Your task to perform on an android device: uninstall "Pinterest" Image 0: 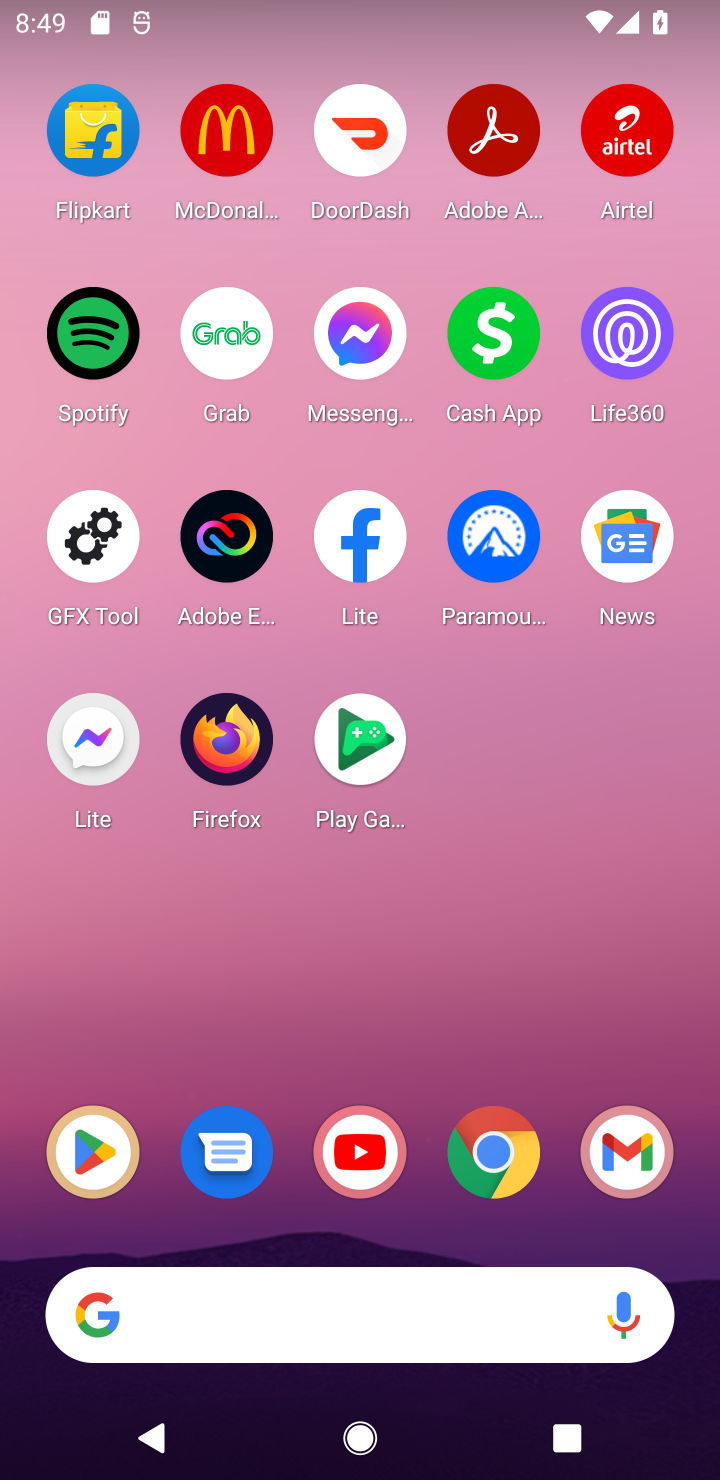
Step 0: click (89, 1154)
Your task to perform on an android device: uninstall "Pinterest" Image 1: 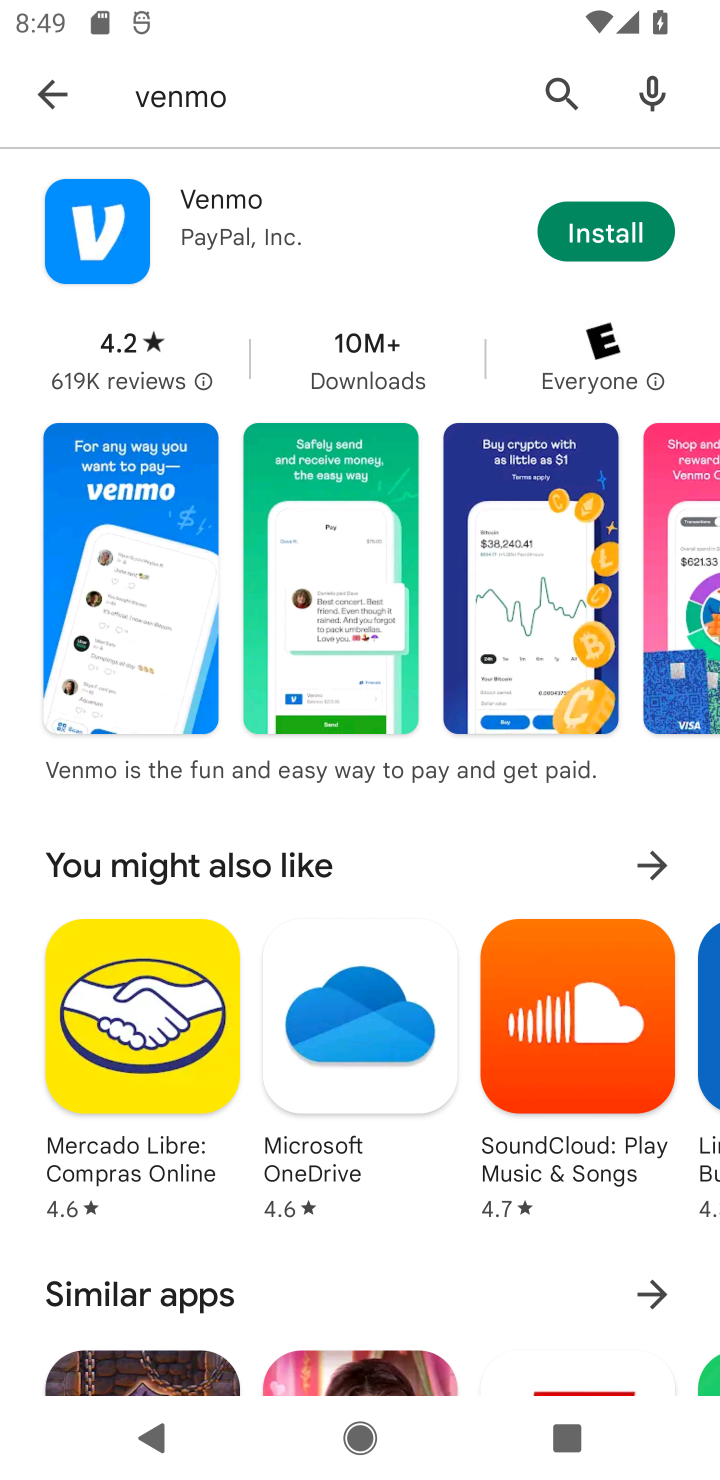
Step 1: click (23, 79)
Your task to perform on an android device: uninstall "Pinterest" Image 2: 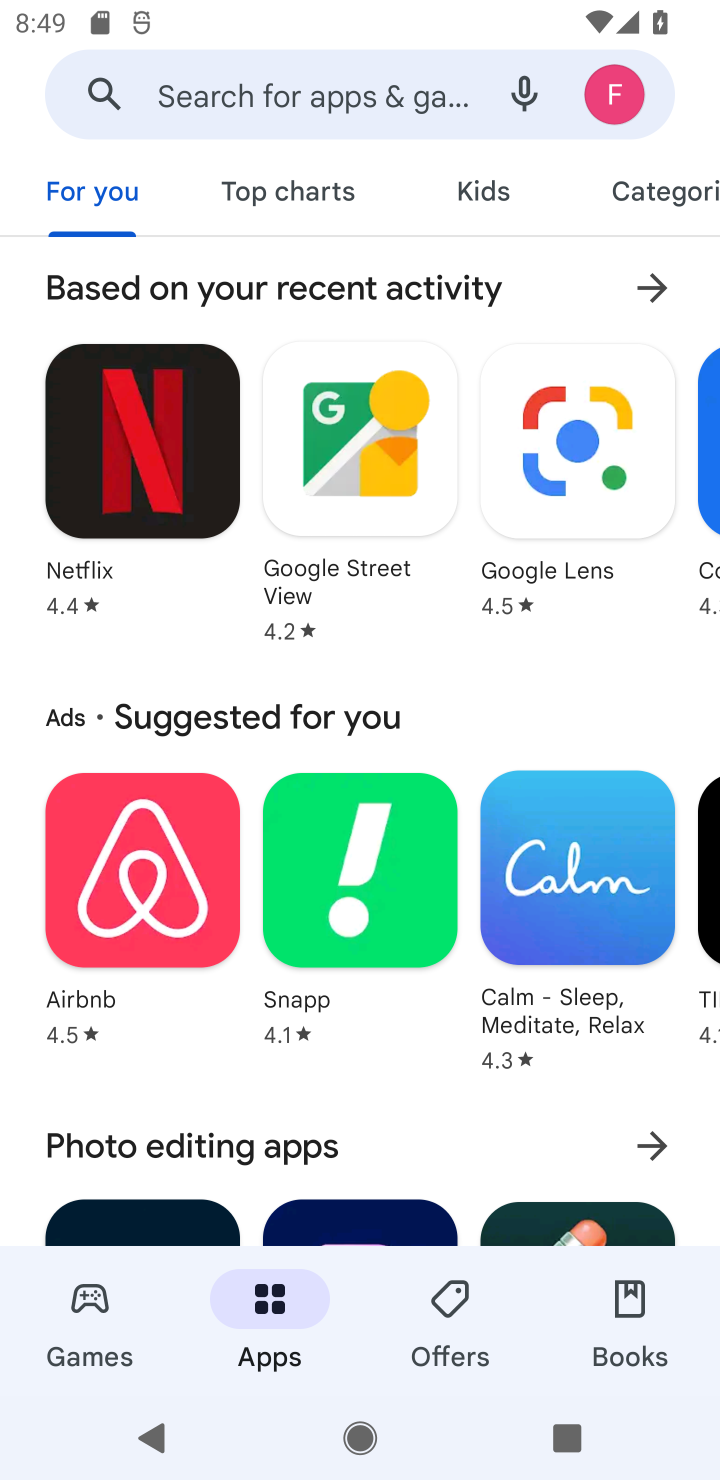
Step 2: click (269, 96)
Your task to perform on an android device: uninstall "Pinterest" Image 3: 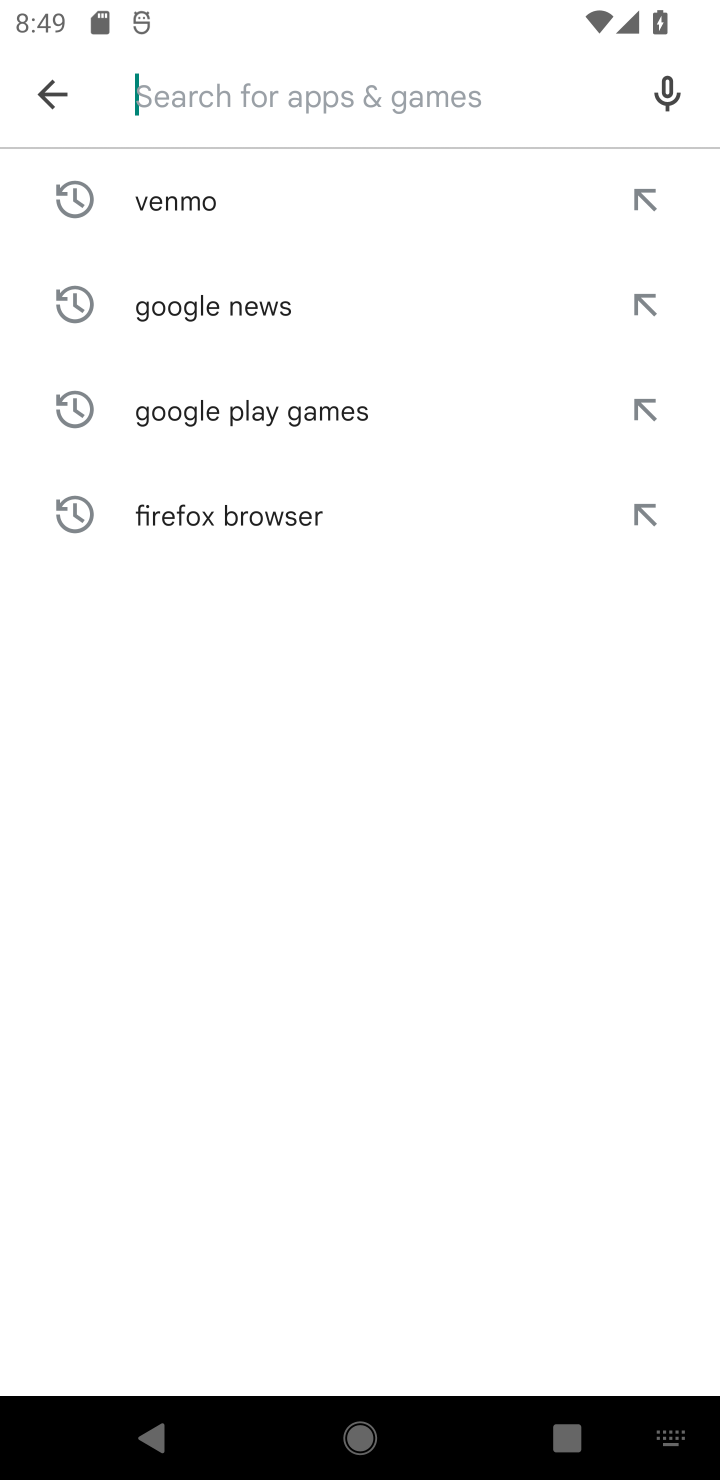
Step 3: type "Pinterest"
Your task to perform on an android device: uninstall "Pinterest" Image 4: 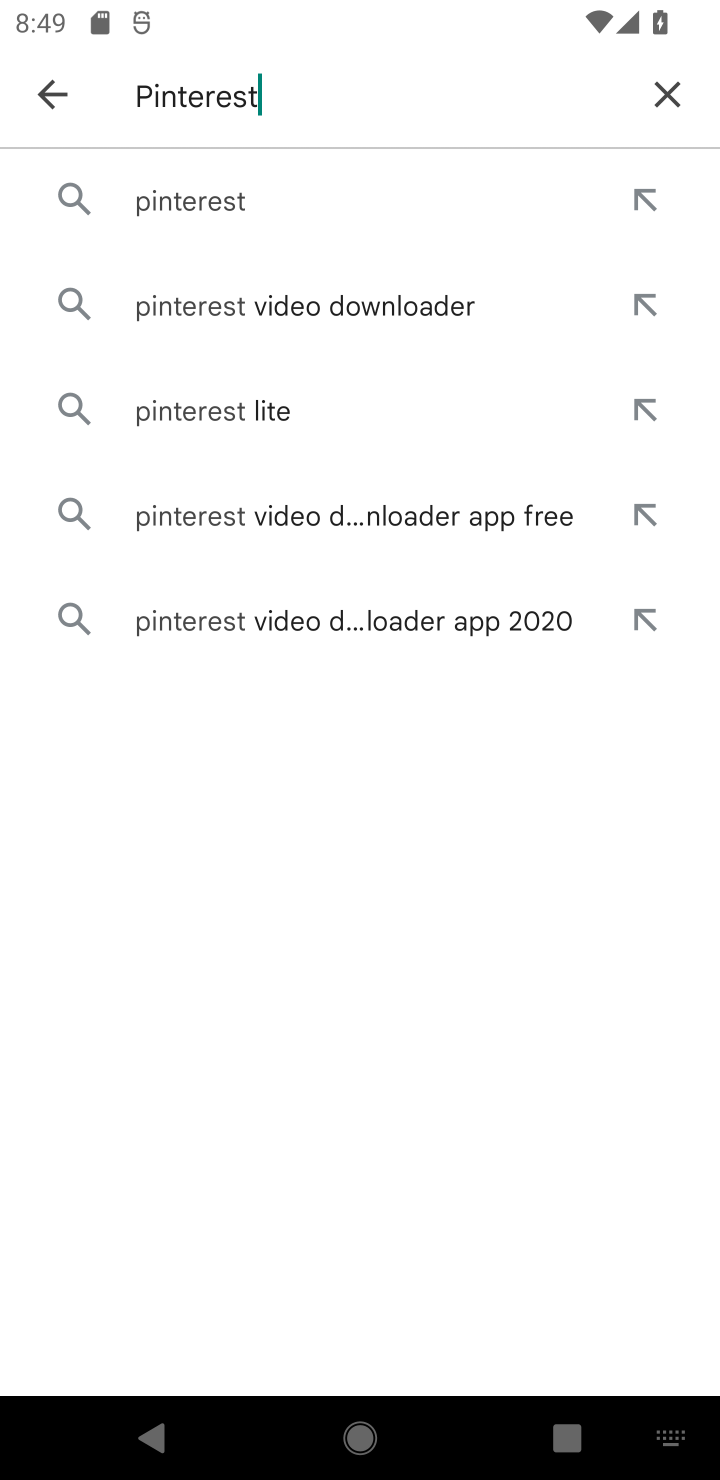
Step 4: click (195, 199)
Your task to perform on an android device: uninstall "Pinterest" Image 5: 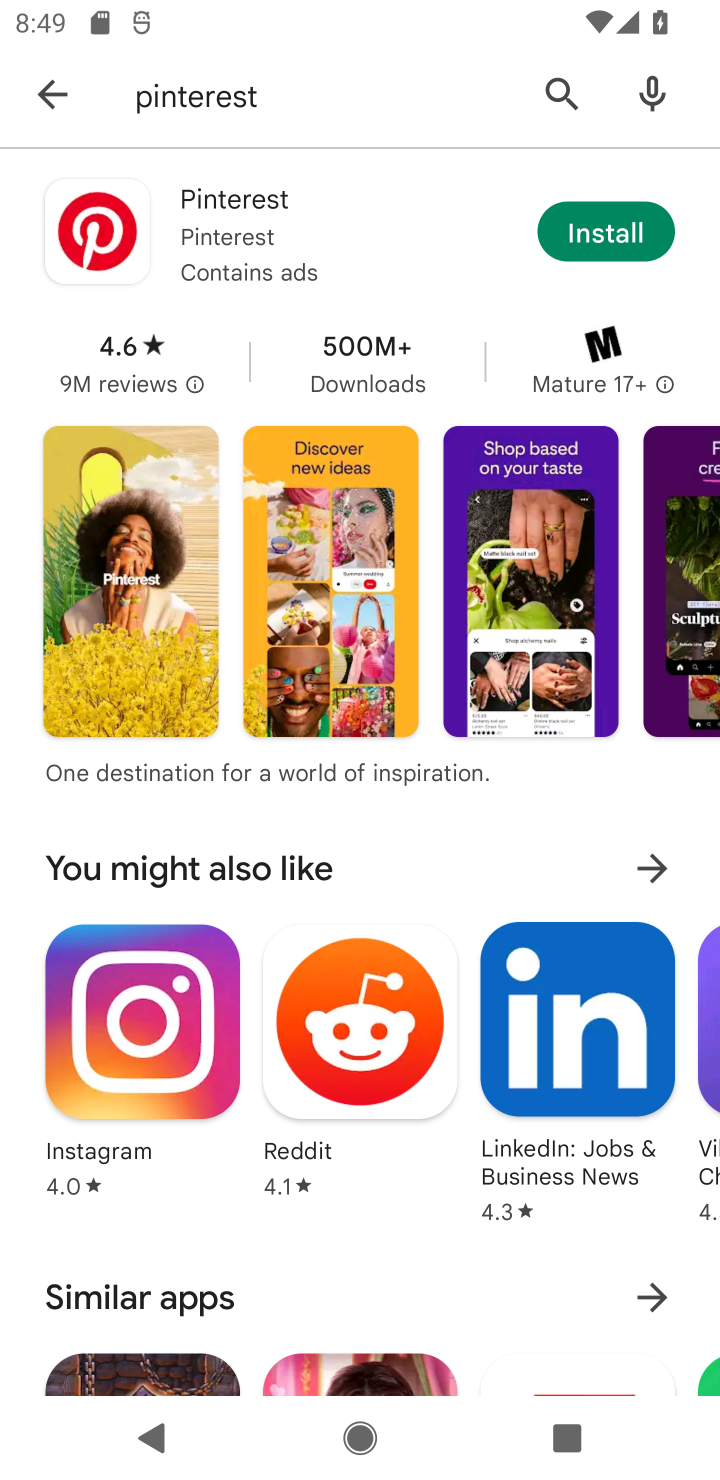
Step 5: task complete